Your task to perform on an android device: search for starred emails in the gmail app Image 0: 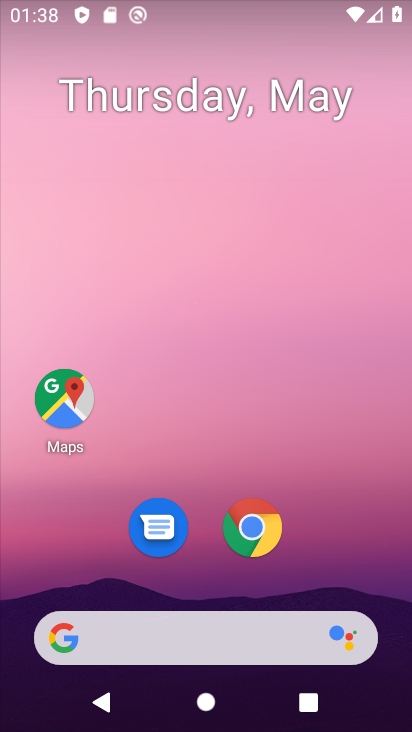
Step 0: click (260, 97)
Your task to perform on an android device: search for starred emails in the gmail app Image 1: 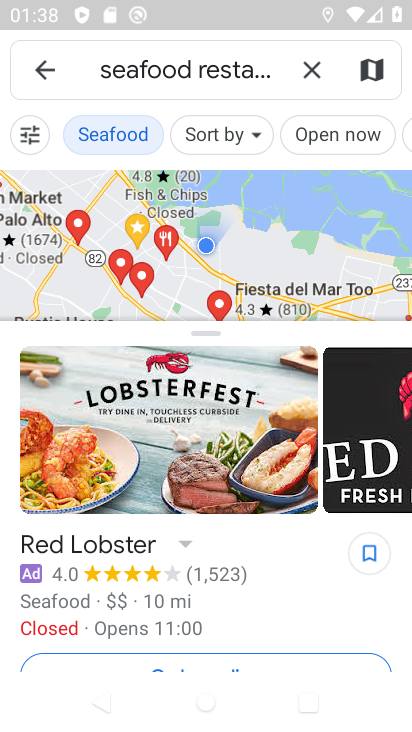
Step 1: press home button
Your task to perform on an android device: search for starred emails in the gmail app Image 2: 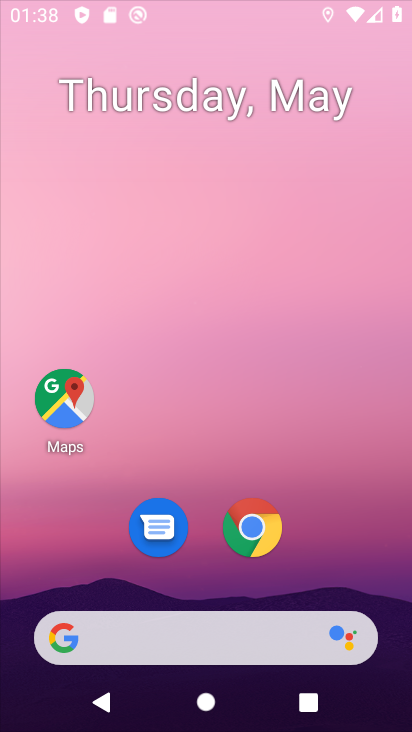
Step 2: drag from (166, 571) to (231, 79)
Your task to perform on an android device: search for starred emails in the gmail app Image 3: 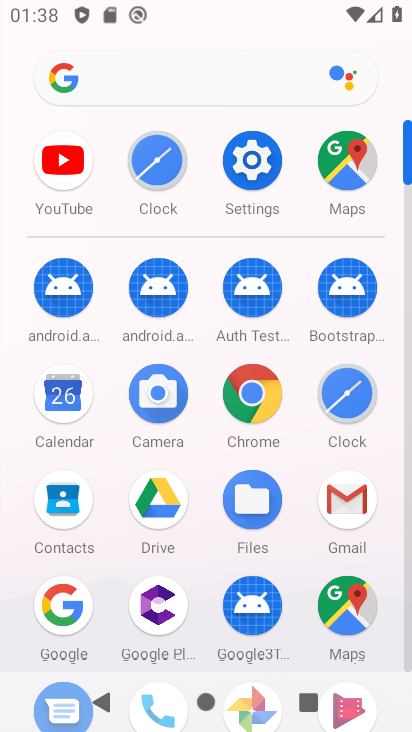
Step 3: click (357, 492)
Your task to perform on an android device: search for starred emails in the gmail app Image 4: 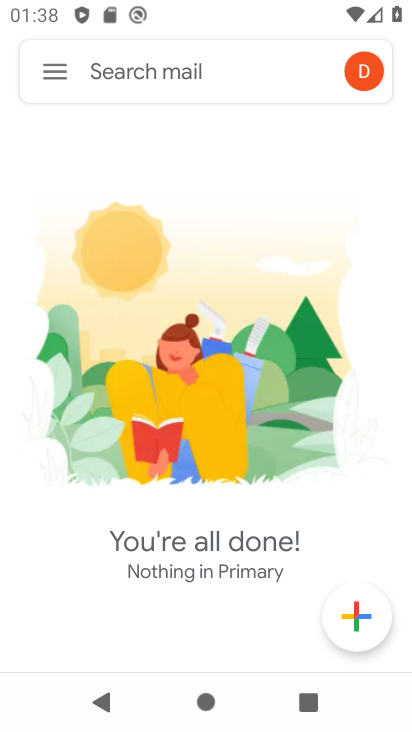
Step 4: click (50, 78)
Your task to perform on an android device: search for starred emails in the gmail app Image 5: 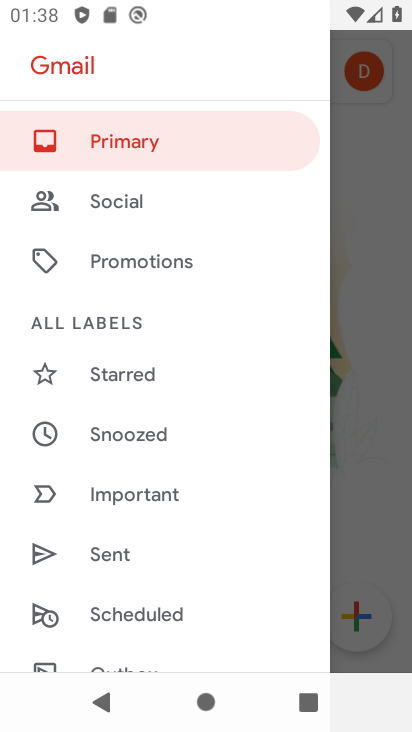
Step 5: click (150, 385)
Your task to perform on an android device: search for starred emails in the gmail app Image 6: 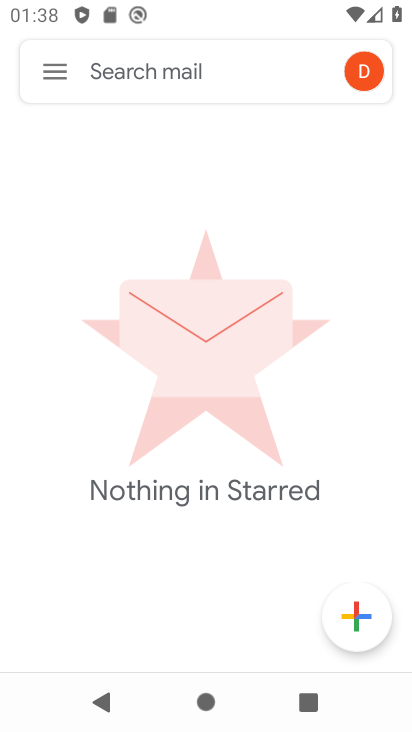
Step 6: task complete